Your task to perform on an android device: Check the news Image 0: 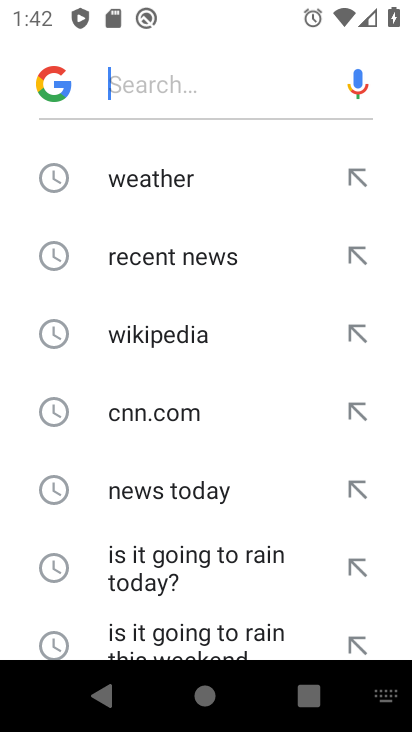
Step 0: press home button
Your task to perform on an android device: Check the news Image 1: 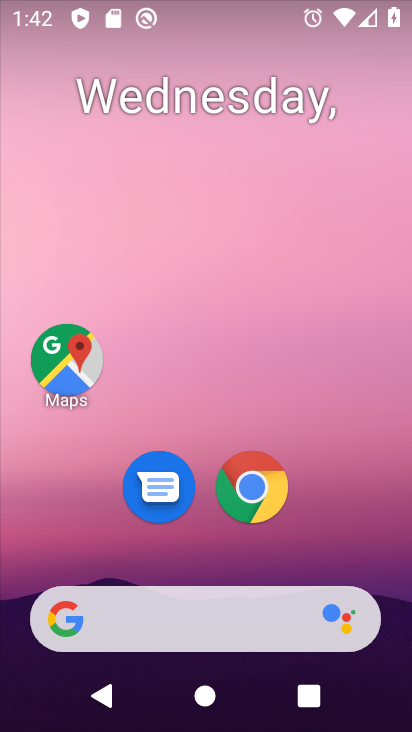
Step 1: drag from (398, 608) to (231, 89)
Your task to perform on an android device: Check the news Image 2: 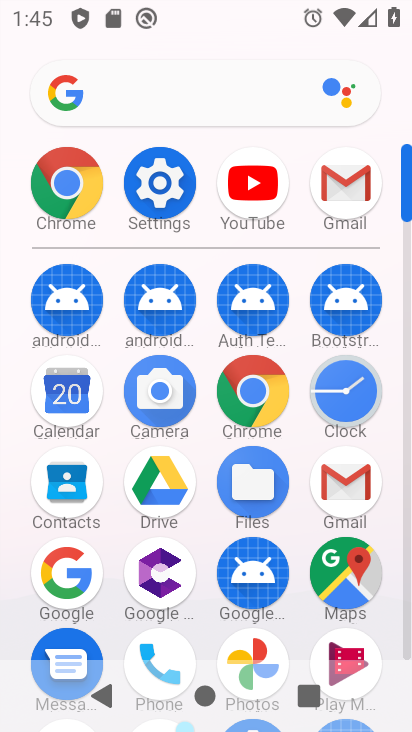
Step 2: click (65, 182)
Your task to perform on an android device: Check the news Image 3: 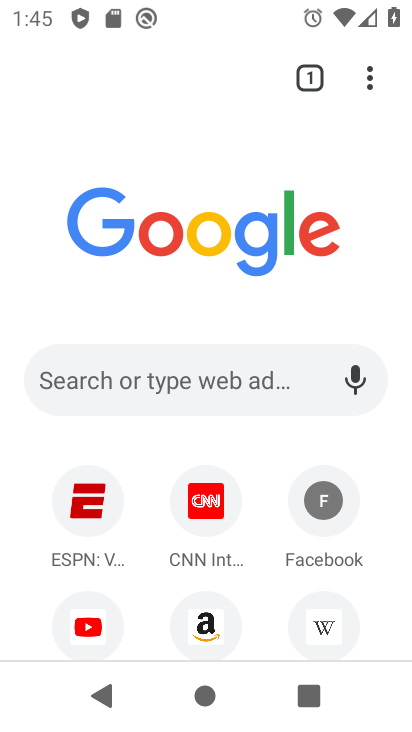
Step 3: drag from (147, 575) to (130, 56)
Your task to perform on an android device: Check the news Image 4: 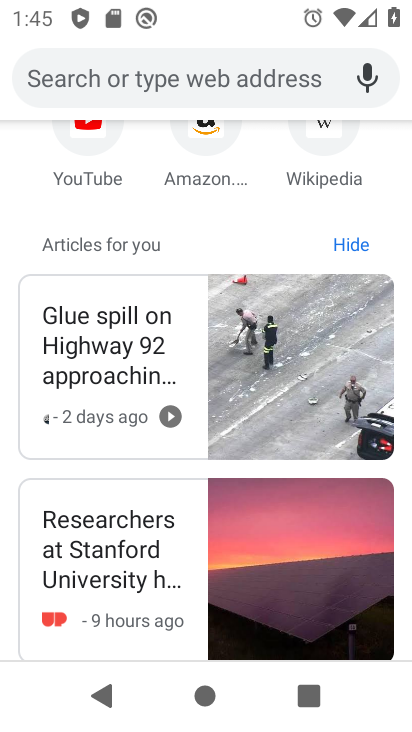
Step 4: click (128, 369)
Your task to perform on an android device: Check the news Image 5: 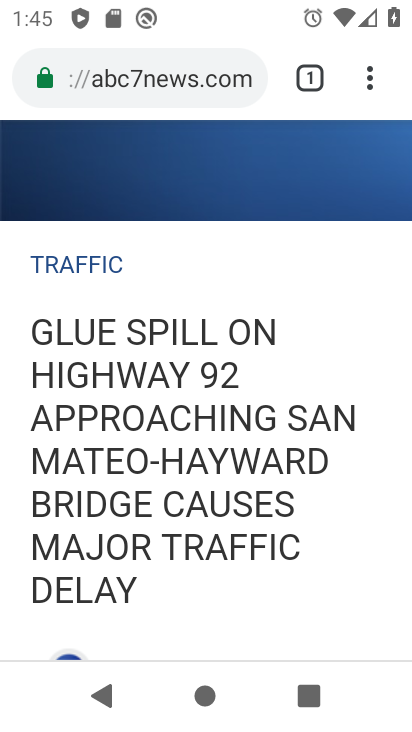
Step 5: task complete